Your task to perform on an android device: turn on the 24-hour format for clock Image 0: 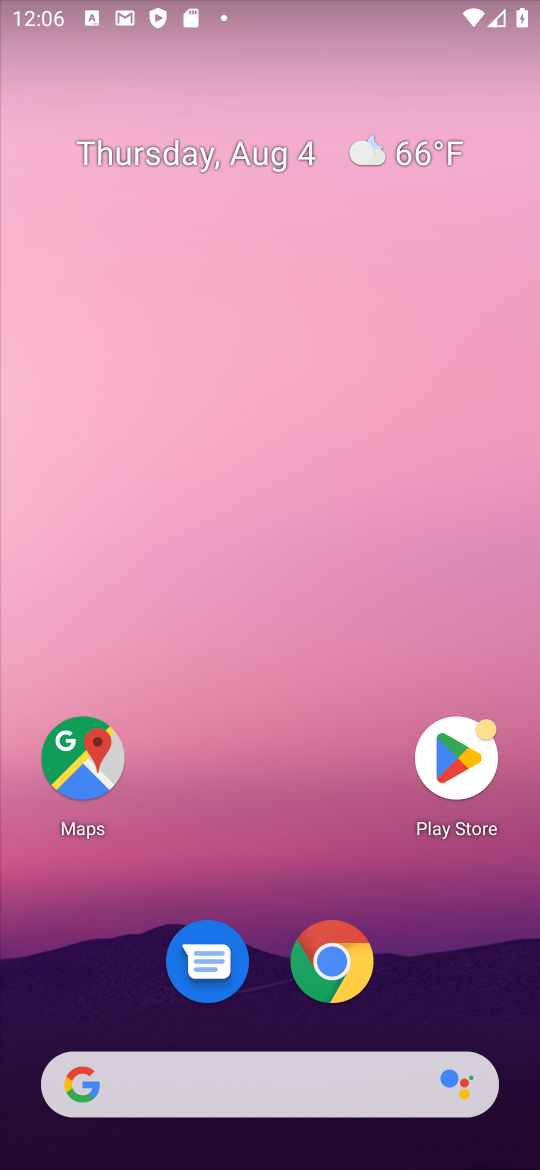
Step 0: drag from (270, 789) to (175, 74)
Your task to perform on an android device: turn on the 24-hour format for clock Image 1: 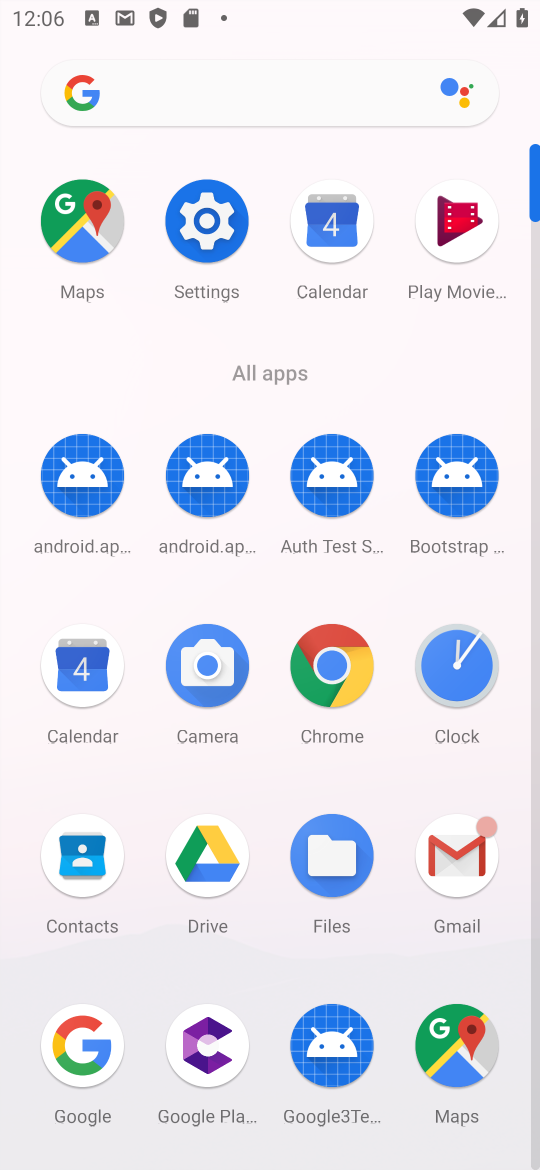
Step 1: click (458, 672)
Your task to perform on an android device: turn on the 24-hour format for clock Image 2: 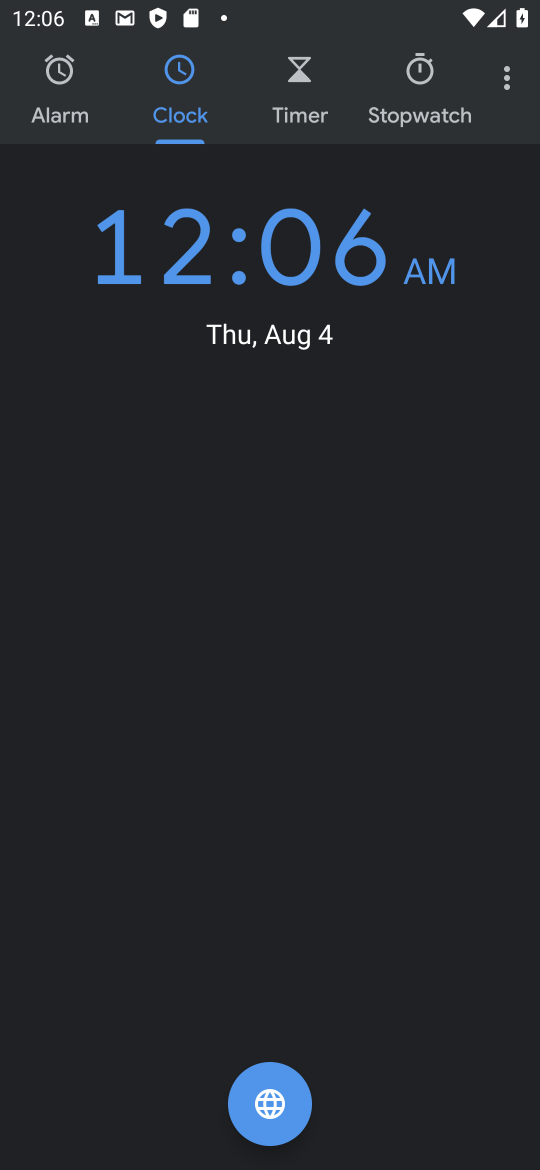
Step 2: click (458, 672)
Your task to perform on an android device: turn on the 24-hour format for clock Image 3: 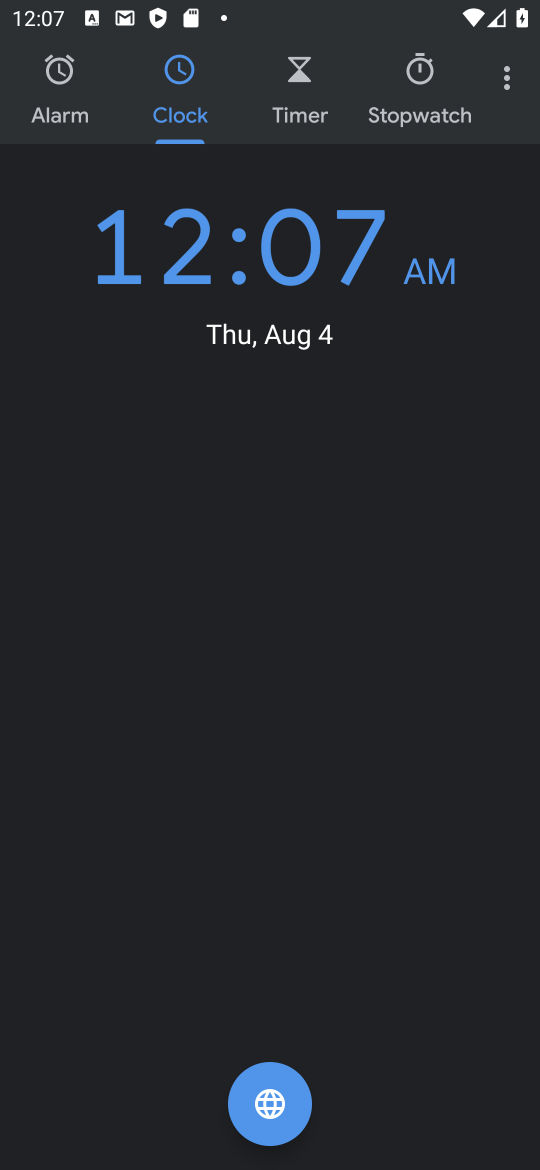
Step 3: click (499, 80)
Your task to perform on an android device: turn on the 24-hour format for clock Image 4: 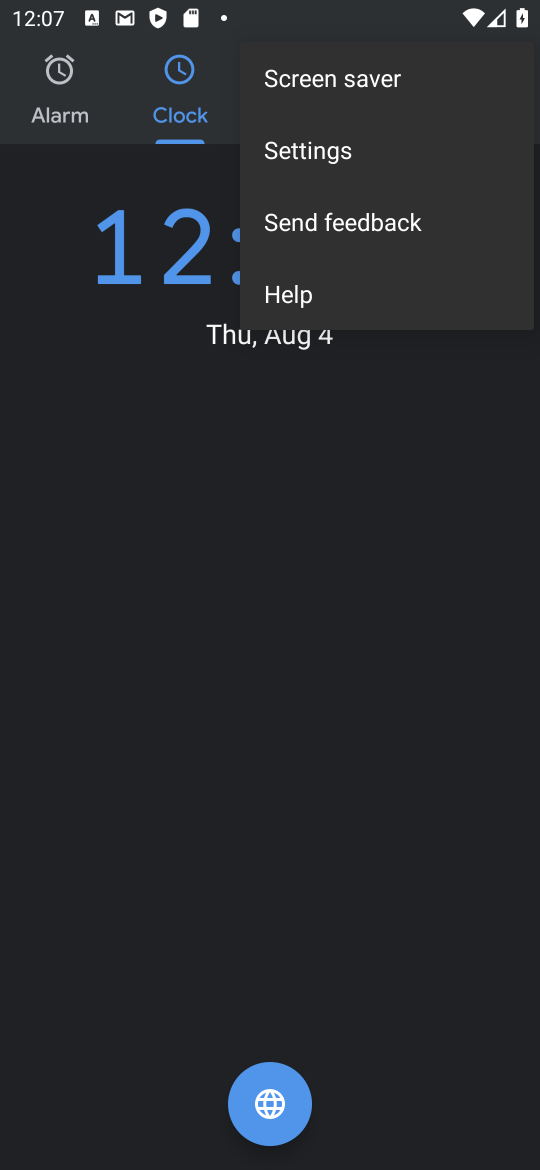
Step 4: click (397, 155)
Your task to perform on an android device: turn on the 24-hour format for clock Image 5: 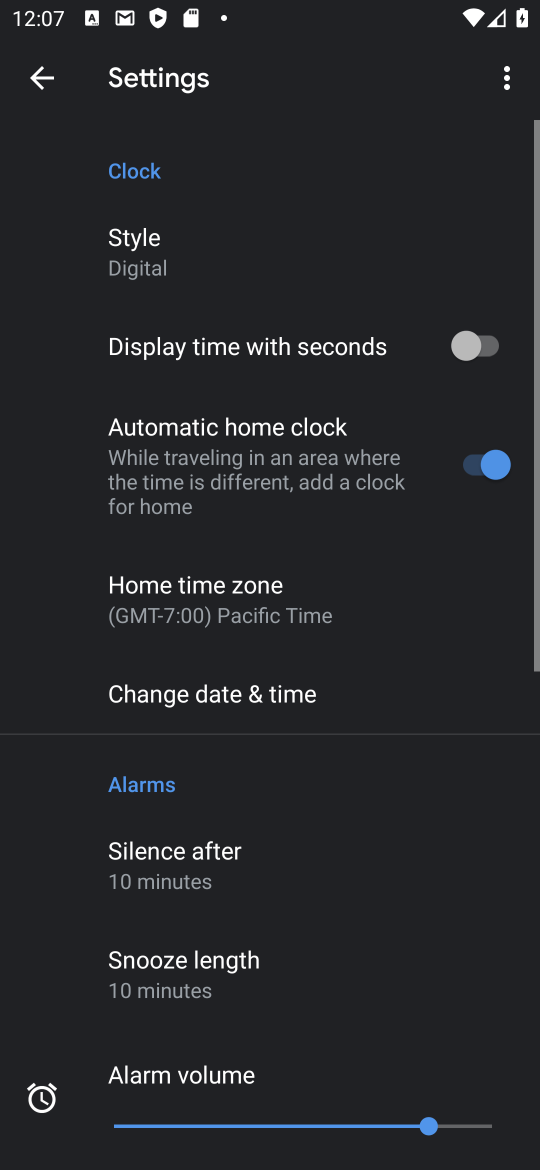
Step 5: click (277, 695)
Your task to perform on an android device: turn on the 24-hour format for clock Image 6: 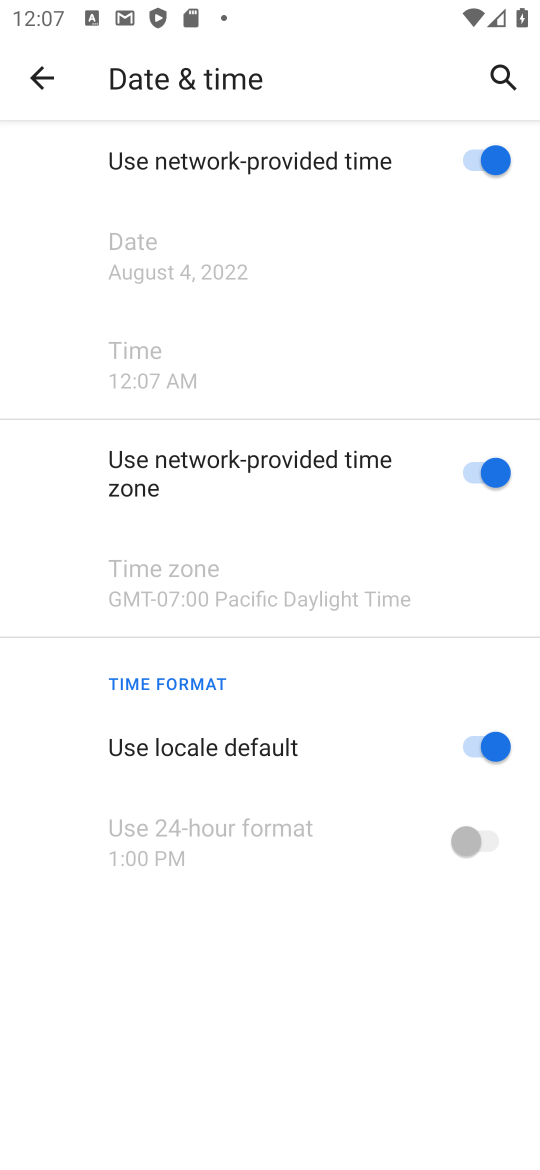
Step 6: click (462, 738)
Your task to perform on an android device: turn on the 24-hour format for clock Image 7: 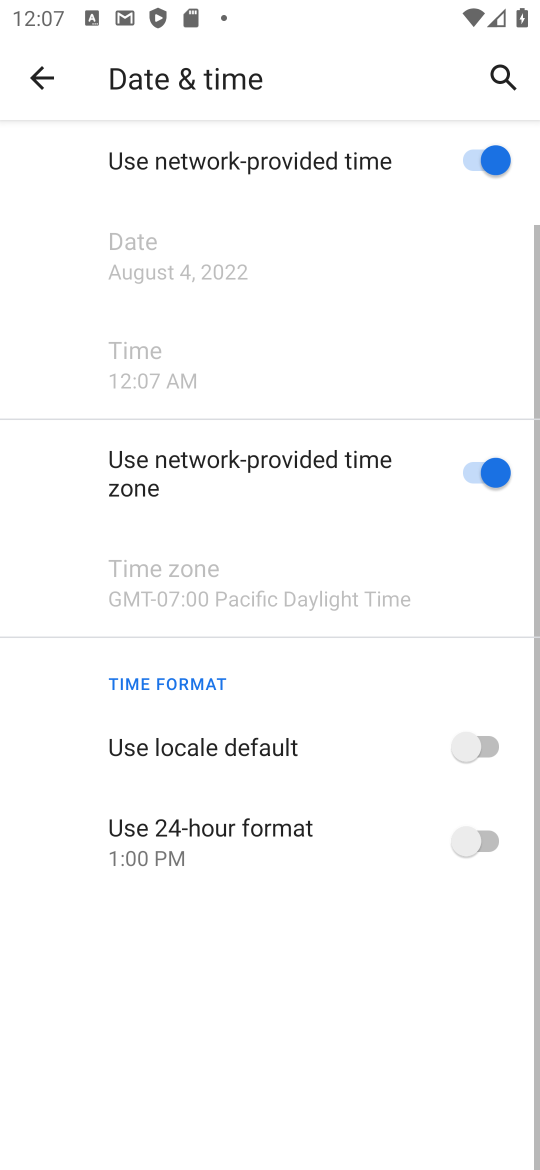
Step 7: click (488, 826)
Your task to perform on an android device: turn on the 24-hour format for clock Image 8: 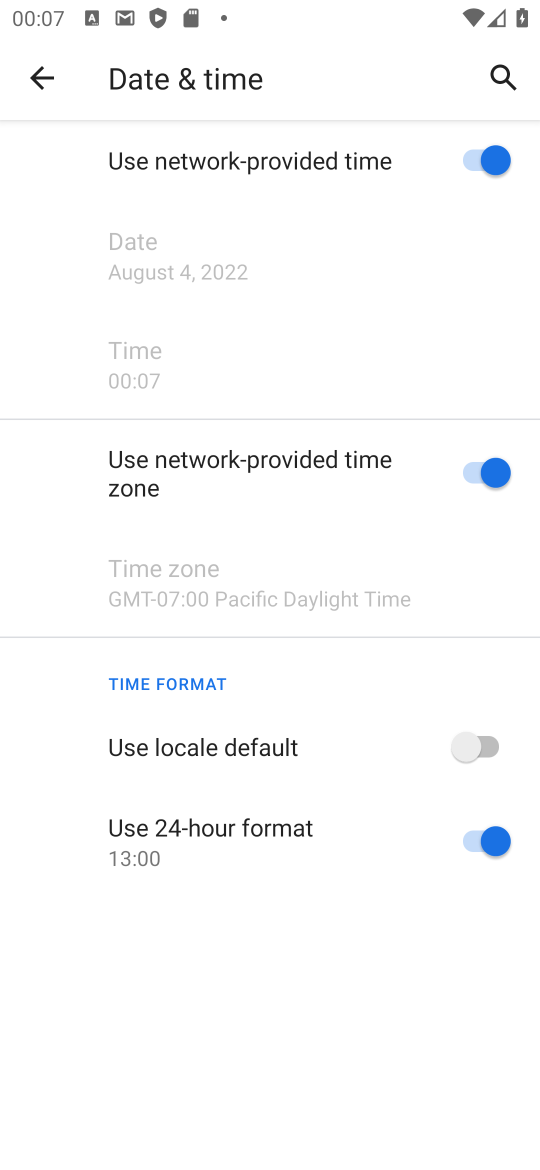
Step 8: task complete